Your task to perform on an android device: set default search engine in the chrome app Image 0: 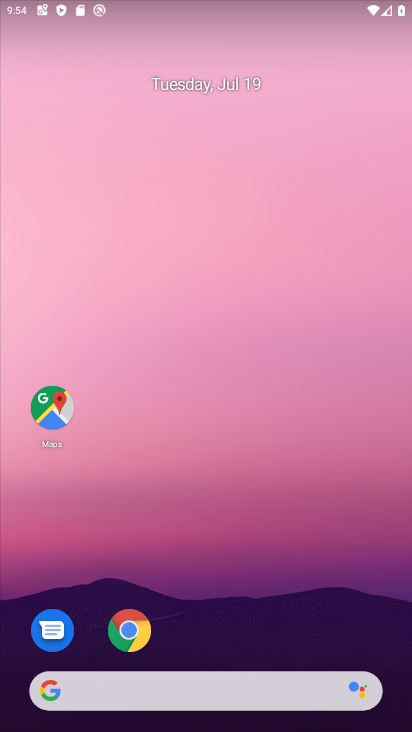
Step 0: drag from (264, 687) to (326, 281)
Your task to perform on an android device: set default search engine in the chrome app Image 1: 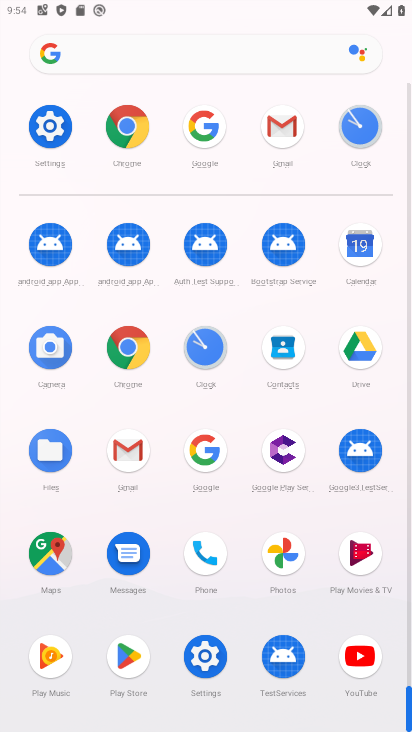
Step 1: click (133, 368)
Your task to perform on an android device: set default search engine in the chrome app Image 2: 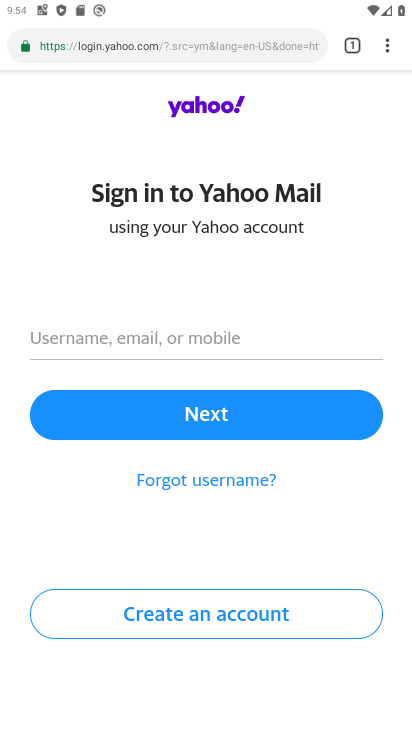
Step 2: click (392, 54)
Your task to perform on an android device: set default search engine in the chrome app Image 3: 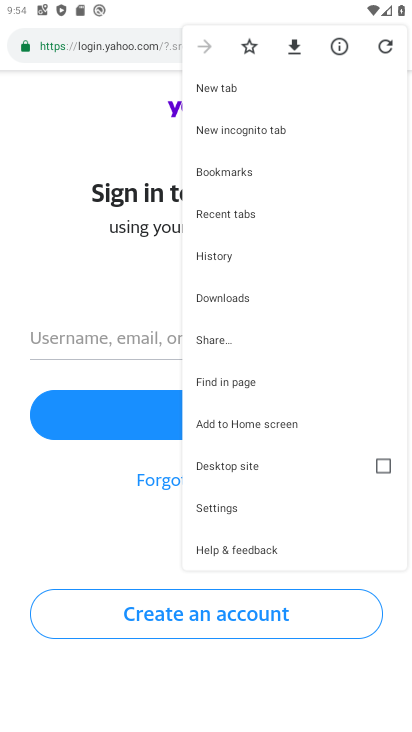
Step 3: drag from (267, 311) to (302, 76)
Your task to perform on an android device: set default search engine in the chrome app Image 4: 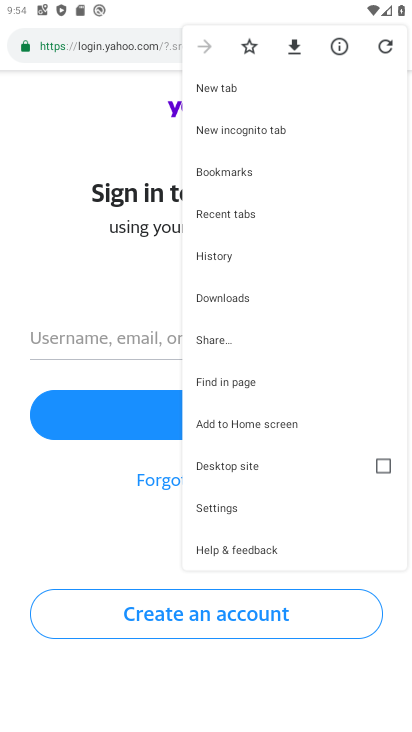
Step 4: click (230, 512)
Your task to perform on an android device: set default search engine in the chrome app Image 5: 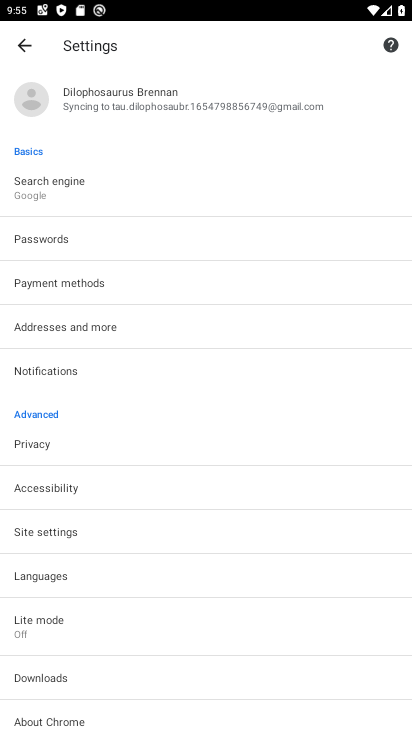
Step 5: click (52, 197)
Your task to perform on an android device: set default search engine in the chrome app Image 6: 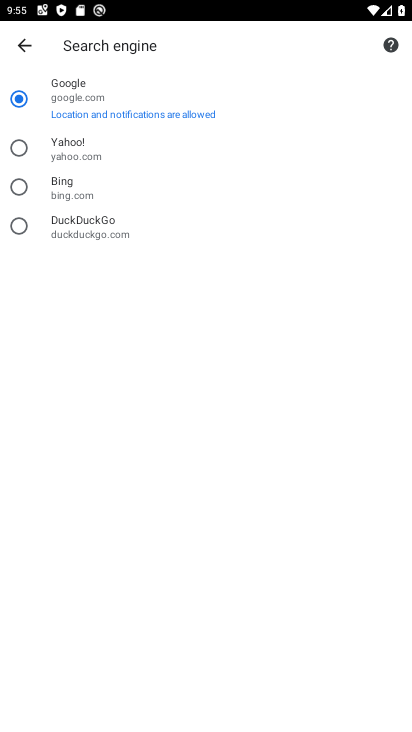
Step 6: task complete